Your task to perform on an android device: turn on improve location accuracy Image 0: 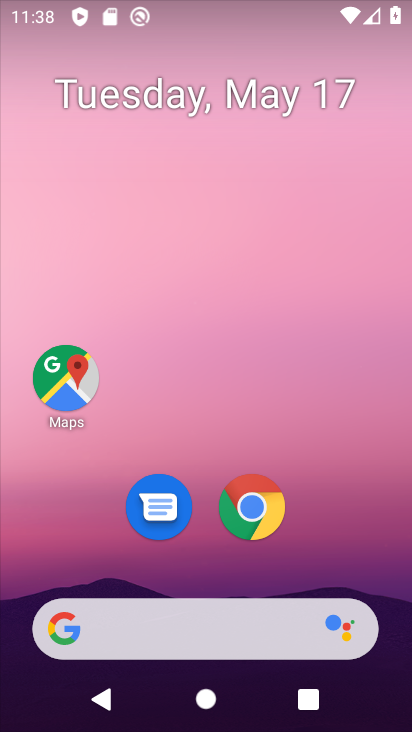
Step 0: drag from (325, 537) to (327, 198)
Your task to perform on an android device: turn on improve location accuracy Image 1: 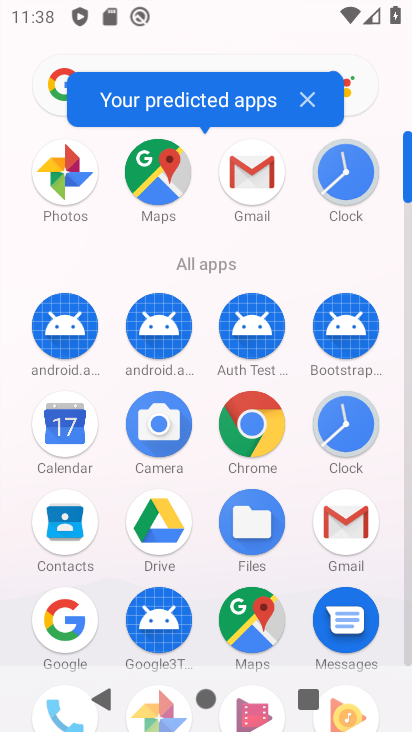
Step 1: drag from (267, 568) to (303, 159)
Your task to perform on an android device: turn on improve location accuracy Image 2: 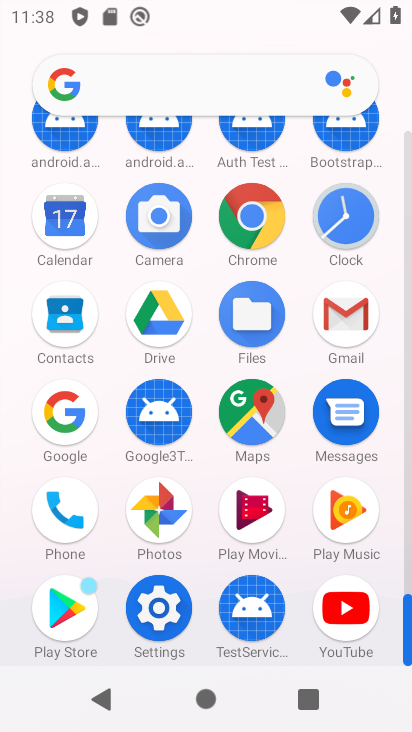
Step 2: click (167, 600)
Your task to perform on an android device: turn on improve location accuracy Image 3: 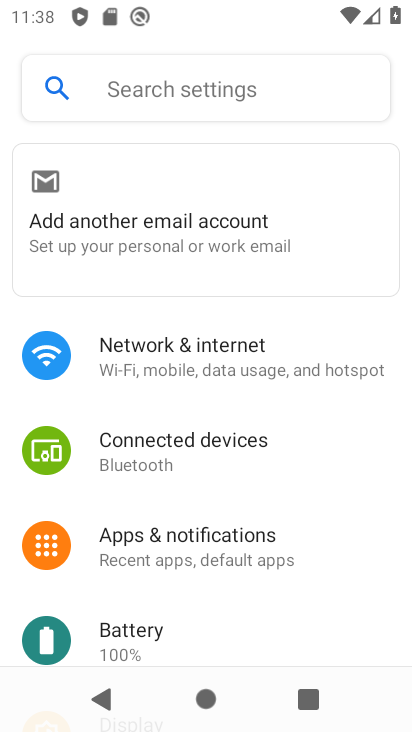
Step 3: drag from (269, 599) to (379, 68)
Your task to perform on an android device: turn on improve location accuracy Image 4: 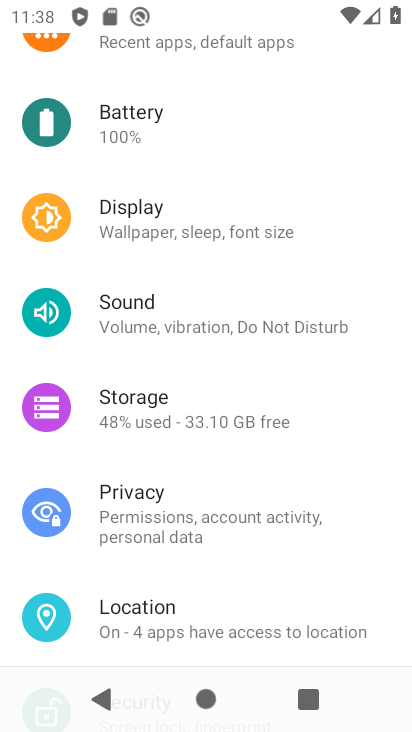
Step 4: drag from (240, 557) to (306, 116)
Your task to perform on an android device: turn on improve location accuracy Image 5: 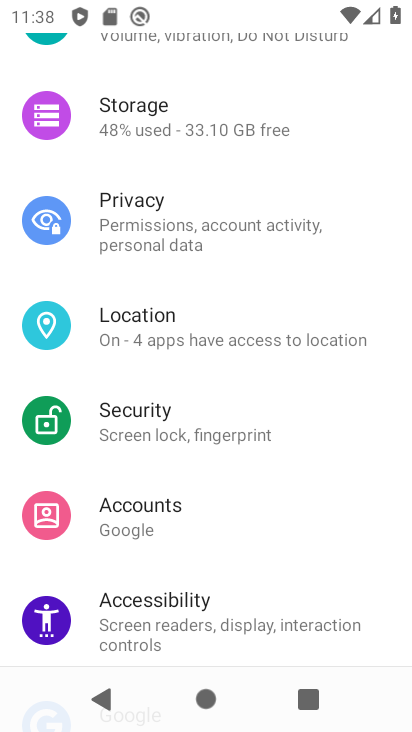
Step 5: drag from (227, 542) to (275, 128)
Your task to perform on an android device: turn on improve location accuracy Image 6: 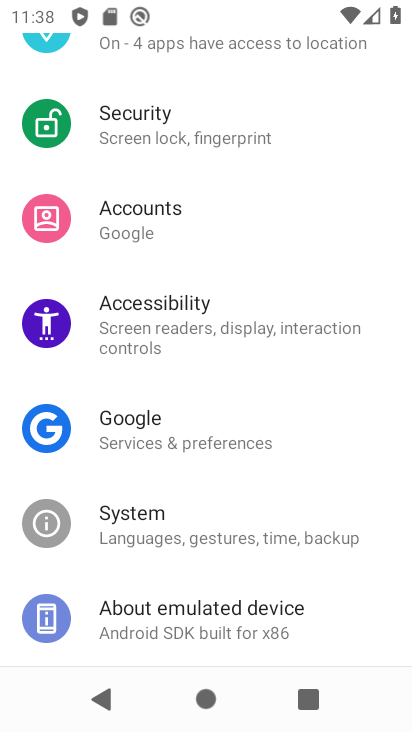
Step 6: drag from (178, 192) to (190, 485)
Your task to perform on an android device: turn on improve location accuracy Image 7: 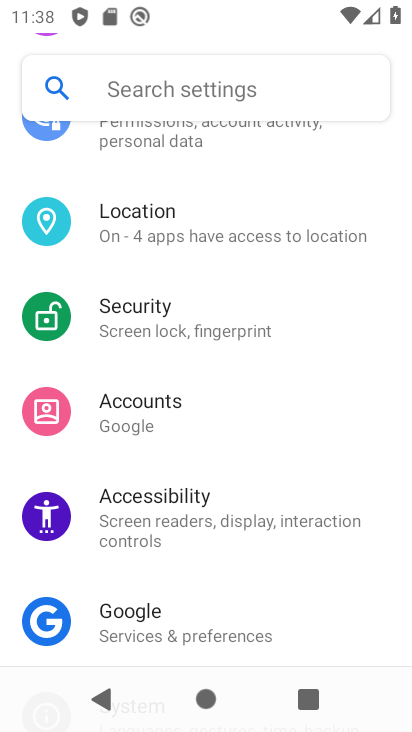
Step 7: click (212, 222)
Your task to perform on an android device: turn on improve location accuracy Image 8: 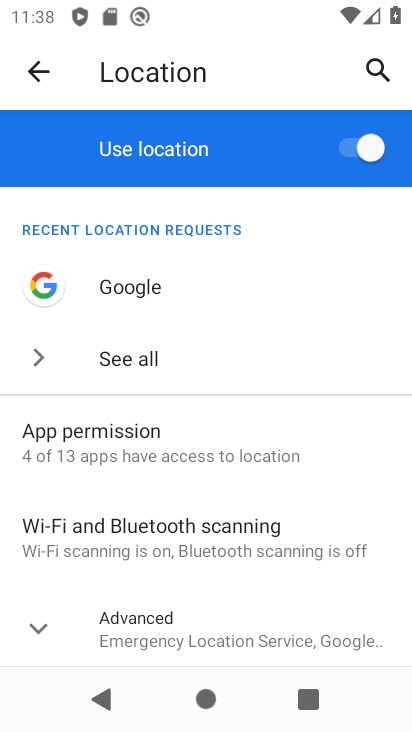
Step 8: drag from (340, 577) to (318, 260)
Your task to perform on an android device: turn on improve location accuracy Image 9: 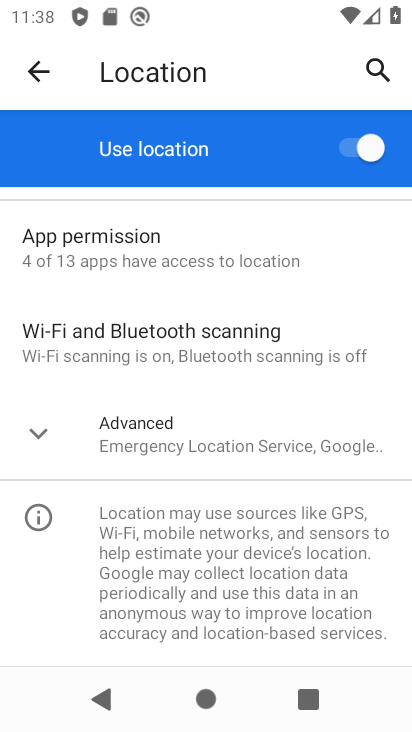
Step 9: click (249, 428)
Your task to perform on an android device: turn on improve location accuracy Image 10: 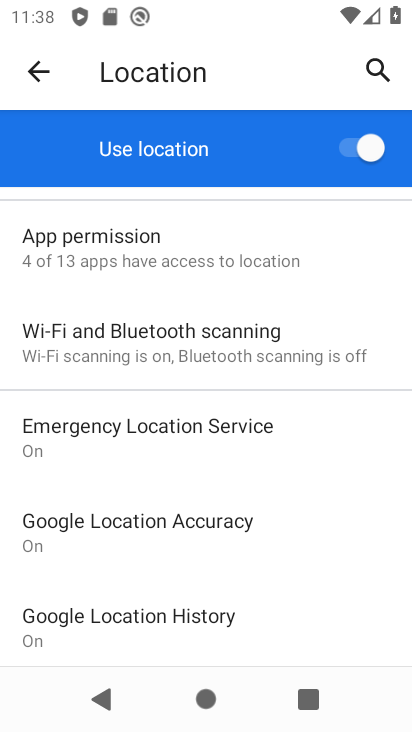
Step 10: click (166, 520)
Your task to perform on an android device: turn on improve location accuracy Image 11: 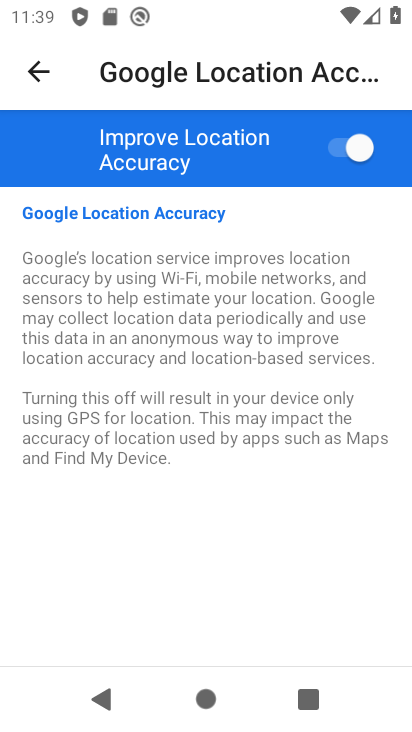
Step 11: task complete